Your task to perform on an android device: Search for pizza restaurants on Maps Image 0: 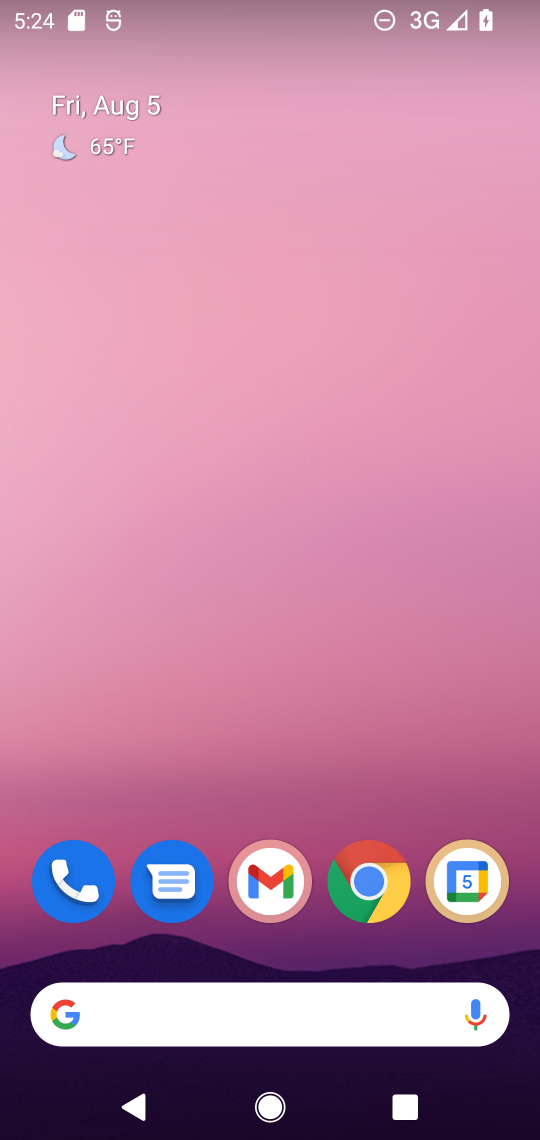
Step 0: drag from (420, 828) to (170, 8)
Your task to perform on an android device: Search for pizza restaurants on Maps Image 1: 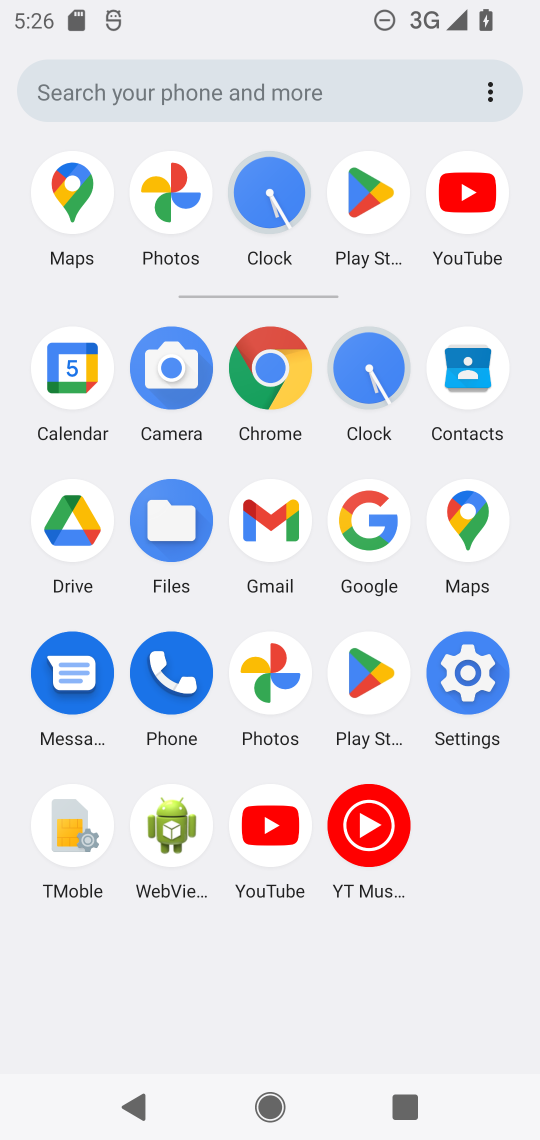
Step 1: click (460, 516)
Your task to perform on an android device: Search for pizza restaurants on Maps Image 2: 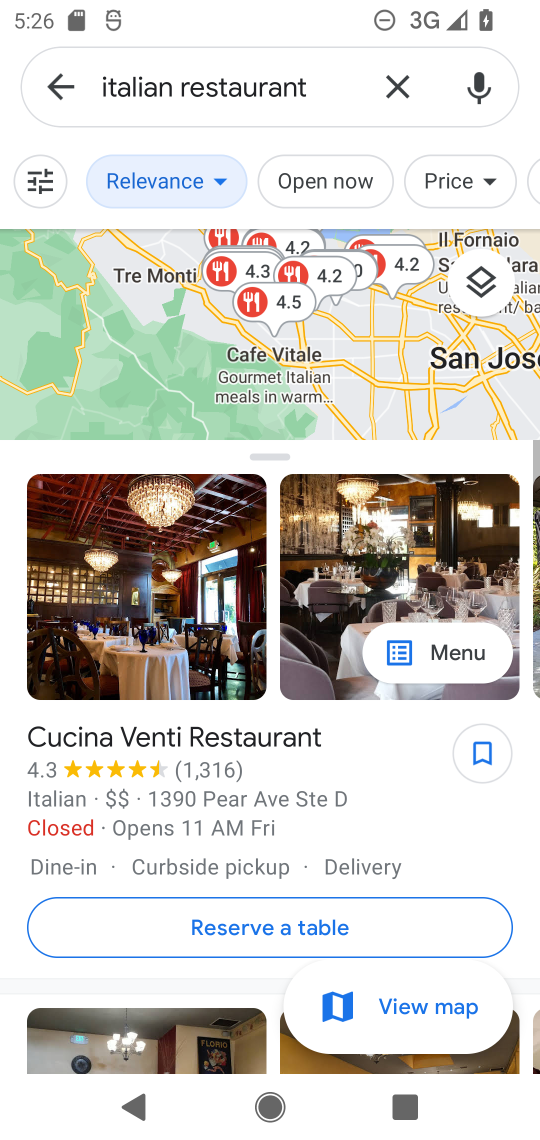
Step 2: click (393, 81)
Your task to perform on an android device: Search for pizza restaurants on Maps Image 3: 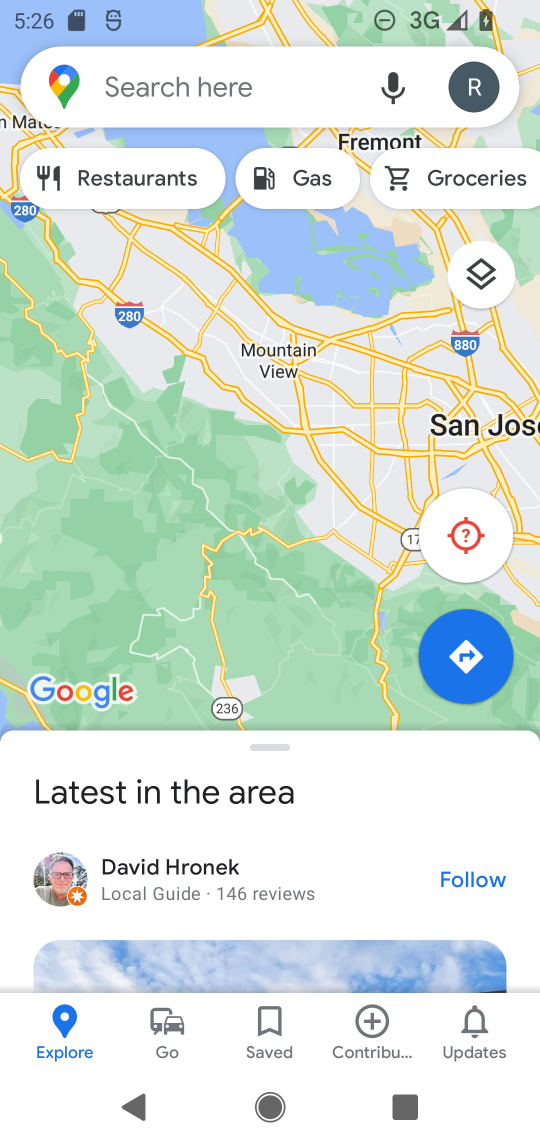
Step 3: click (235, 94)
Your task to perform on an android device: Search for pizza restaurants on Maps Image 4: 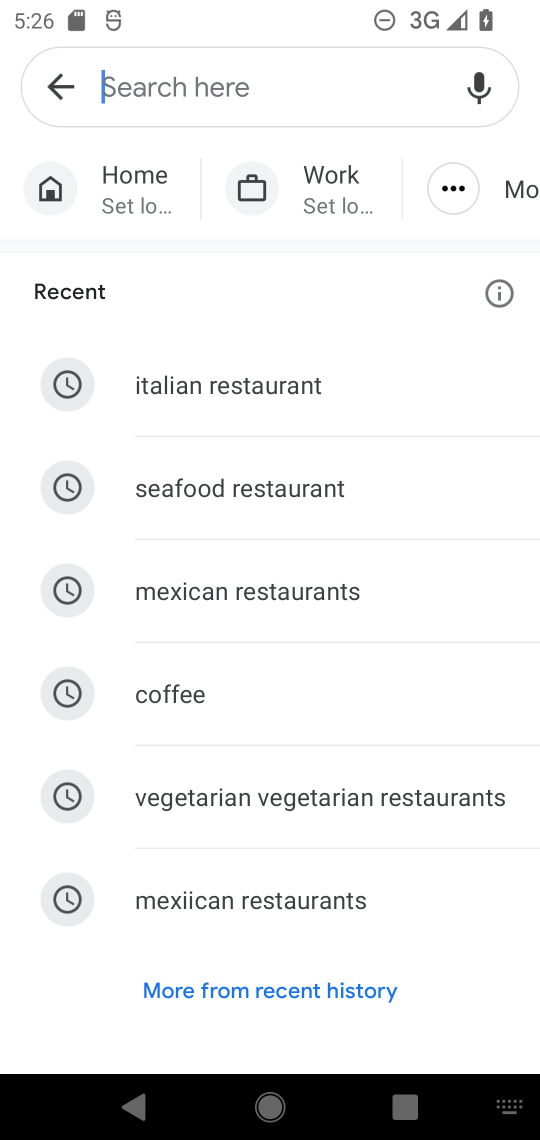
Step 4: type "pizza restaurants"
Your task to perform on an android device: Search for pizza restaurants on Maps Image 5: 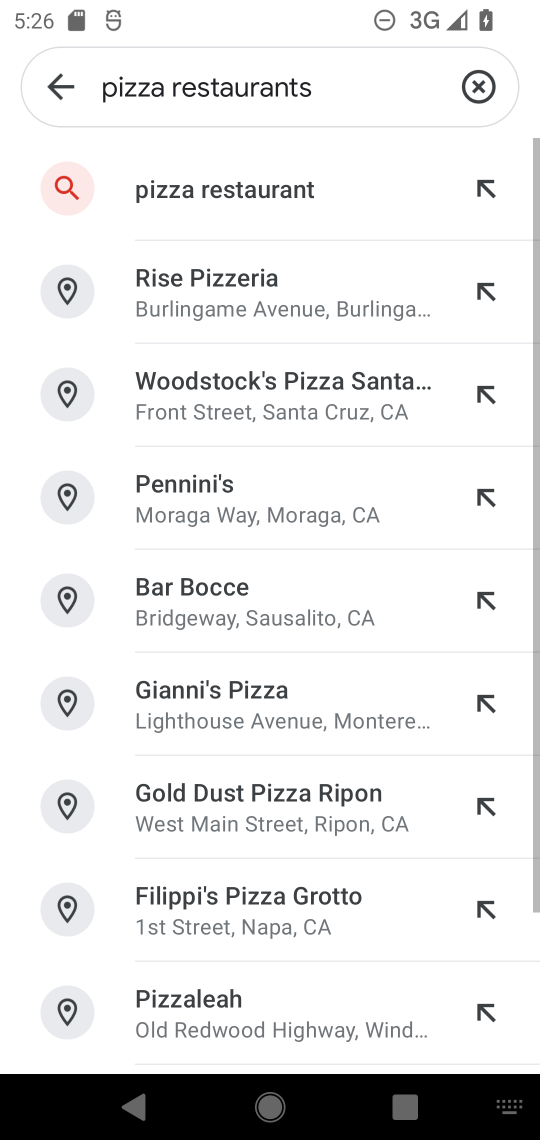
Step 5: click (255, 204)
Your task to perform on an android device: Search for pizza restaurants on Maps Image 6: 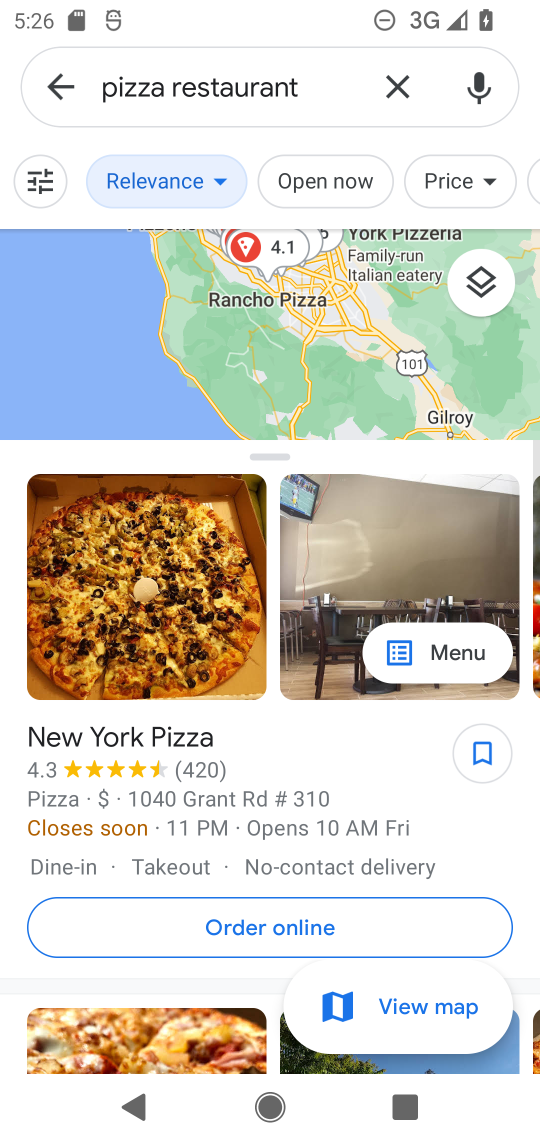
Step 6: task complete